Your task to perform on an android device: Open Android settings Image 0: 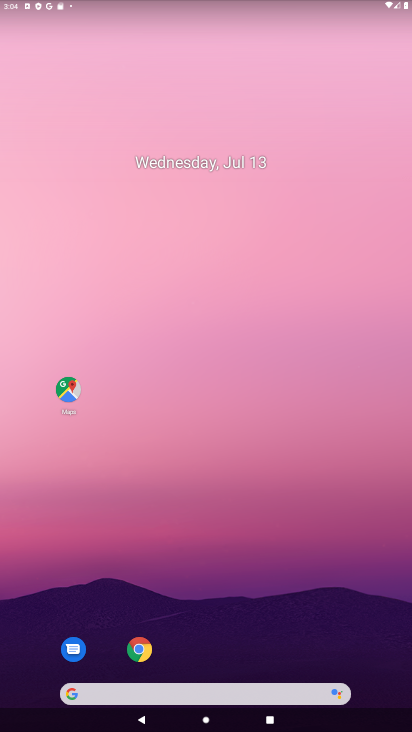
Step 0: press home button
Your task to perform on an android device: Open Android settings Image 1: 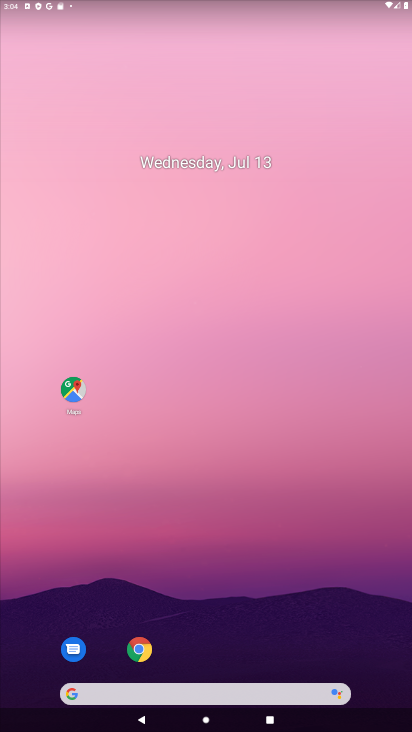
Step 1: drag from (185, 462) to (213, 154)
Your task to perform on an android device: Open Android settings Image 2: 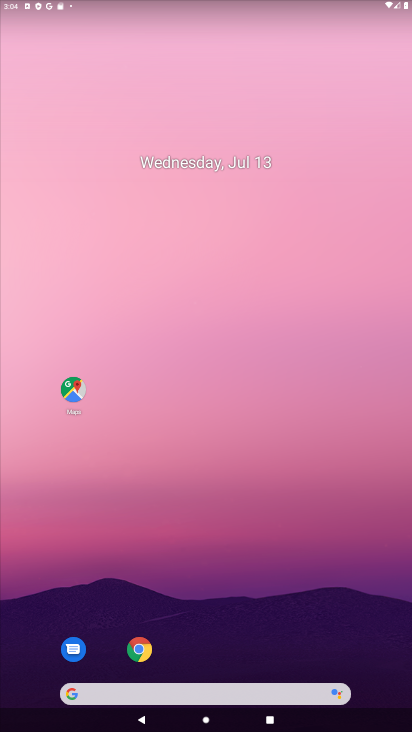
Step 2: drag from (224, 658) to (275, 25)
Your task to perform on an android device: Open Android settings Image 3: 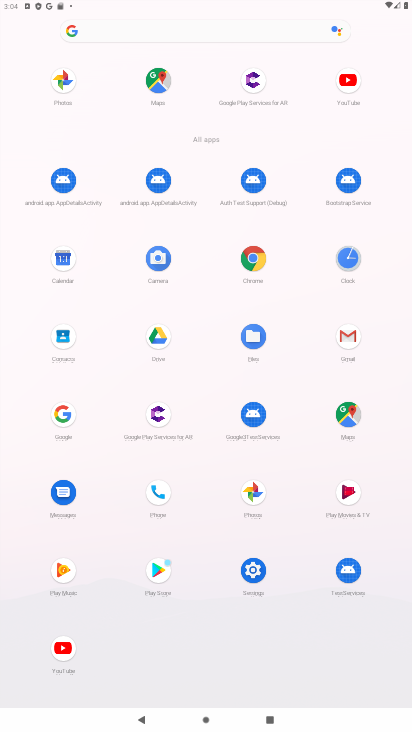
Step 3: click (252, 568)
Your task to perform on an android device: Open Android settings Image 4: 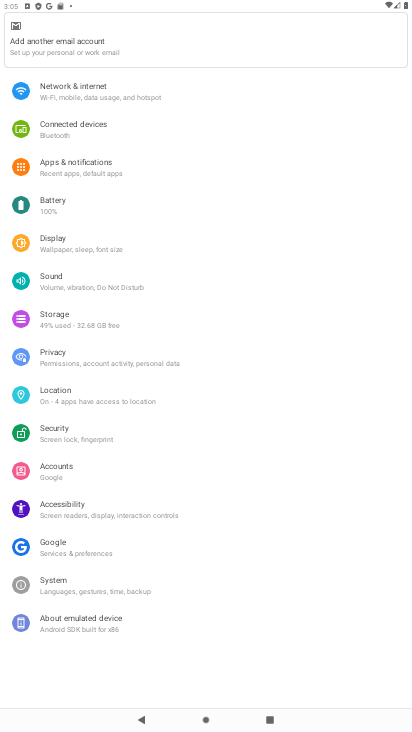
Step 4: click (126, 619)
Your task to perform on an android device: Open Android settings Image 5: 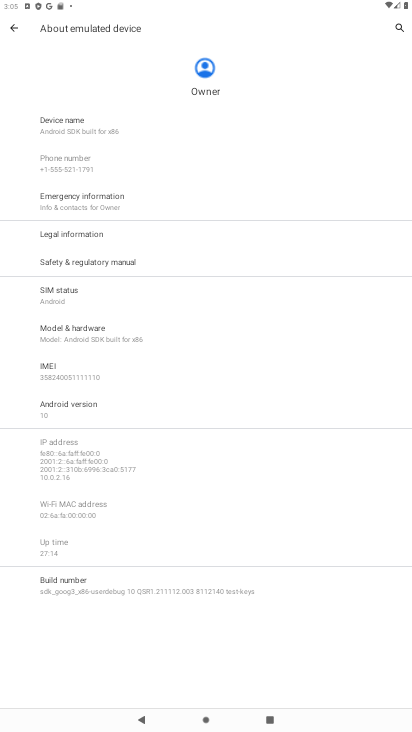
Step 5: click (98, 409)
Your task to perform on an android device: Open Android settings Image 6: 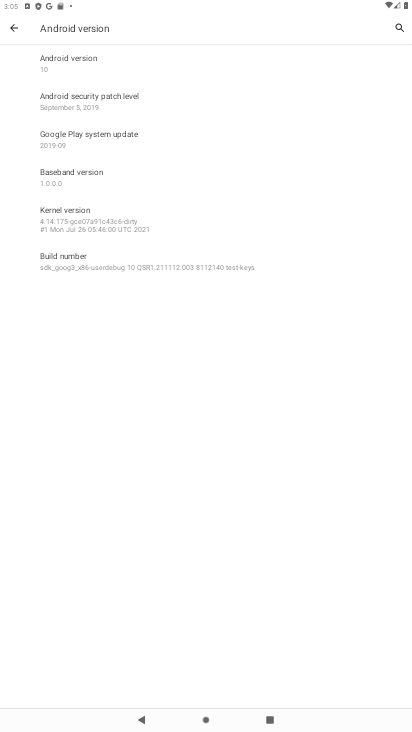
Step 6: task complete